Your task to perform on an android device: open chrome and create a bookmark for the current page Image 0: 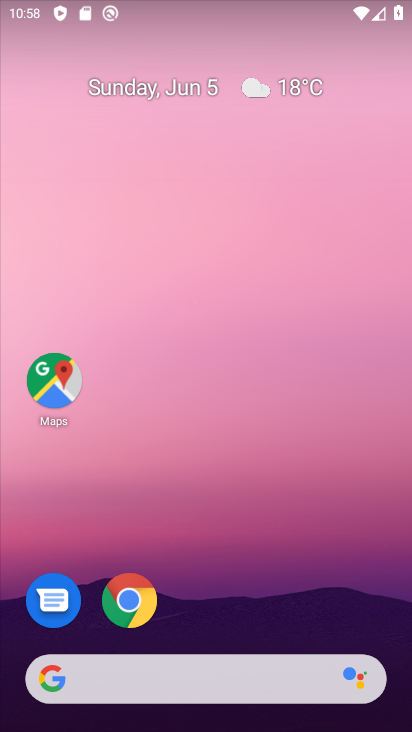
Step 0: drag from (233, 637) to (320, 89)
Your task to perform on an android device: open chrome and create a bookmark for the current page Image 1: 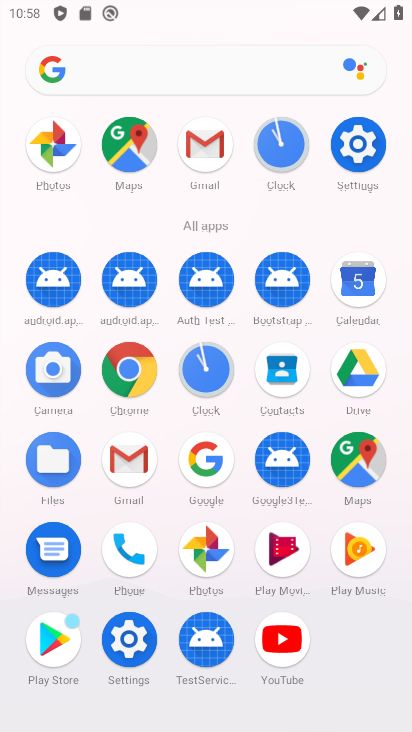
Step 1: click (130, 374)
Your task to perform on an android device: open chrome and create a bookmark for the current page Image 2: 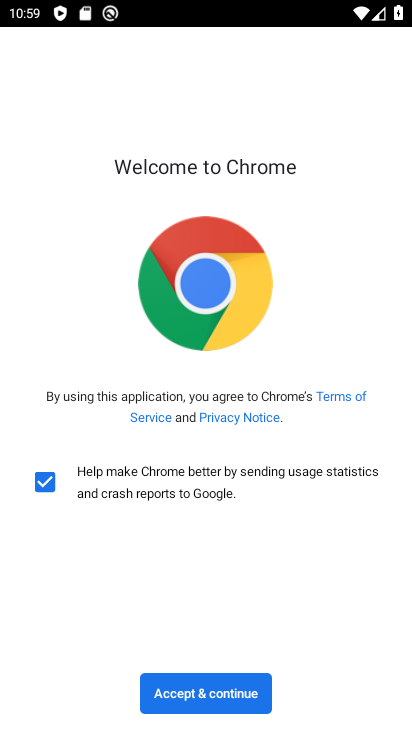
Step 2: click (180, 705)
Your task to perform on an android device: open chrome and create a bookmark for the current page Image 3: 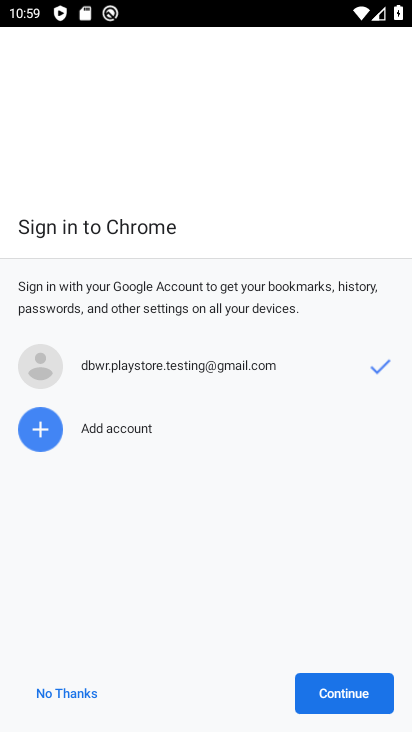
Step 3: click (333, 680)
Your task to perform on an android device: open chrome and create a bookmark for the current page Image 4: 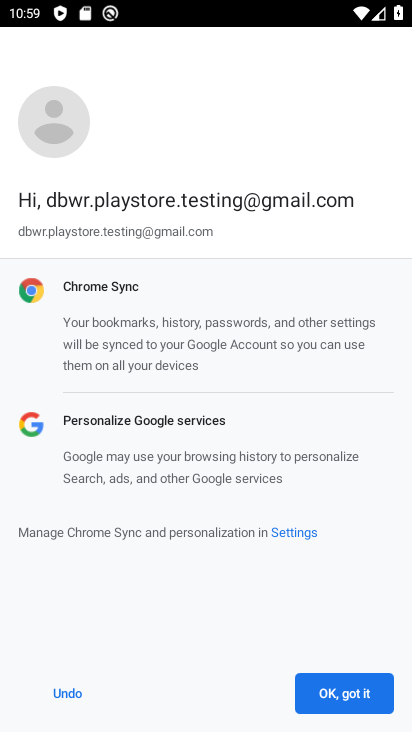
Step 4: click (374, 700)
Your task to perform on an android device: open chrome and create a bookmark for the current page Image 5: 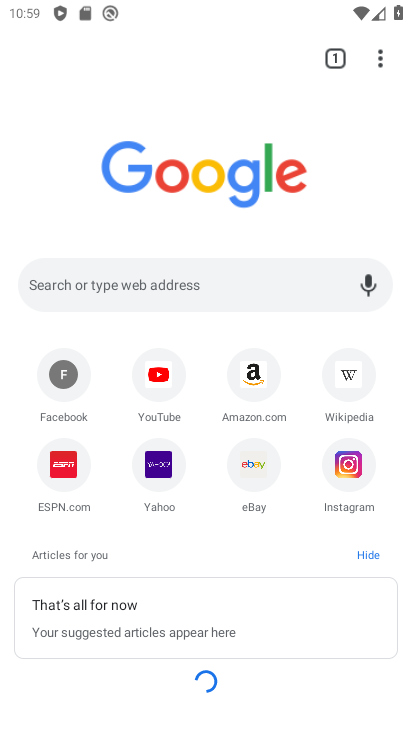
Step 5: task complete